Your task to perform on an android device: move an email to a new category in the gmail app Image 0: 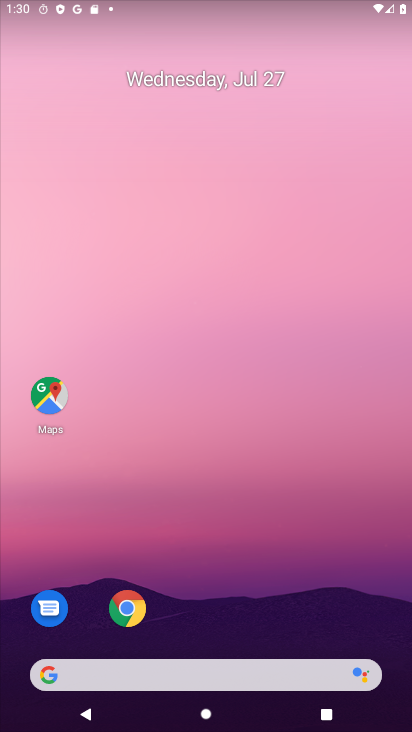
Step 0: click (176, 169)
Your task to perform on an android device: move an email to a new category in the gmail app Image 1: 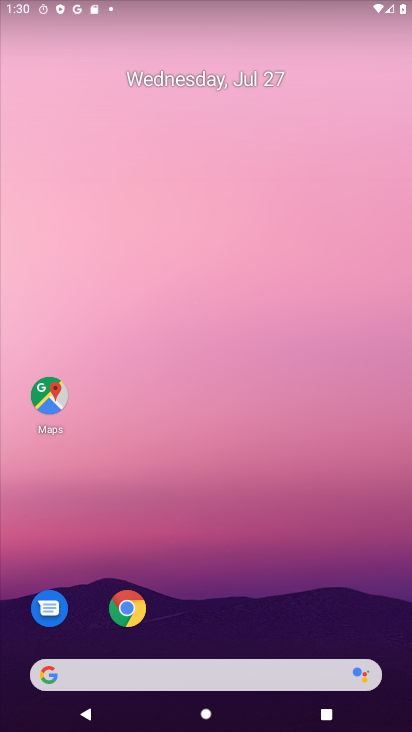
Step 1: drag from (170, 617) to (209, 41)
Your task to perform on an android device: move an email to a new category in the gmail app Image 2: 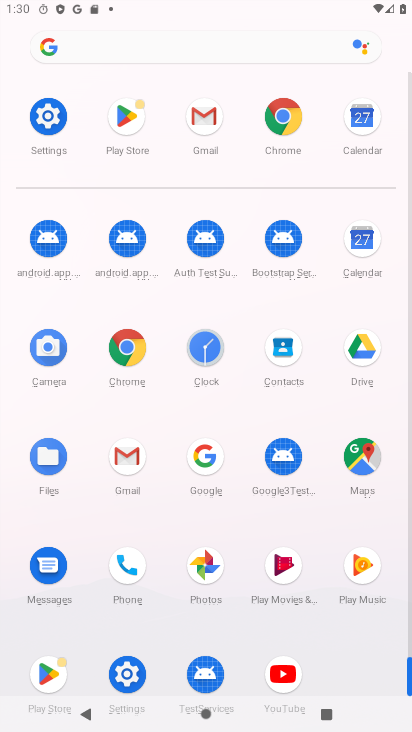
Step 2: click (130, 485)
Your task to perform on an android device: move an email to a new category in the gmail app Image 3: 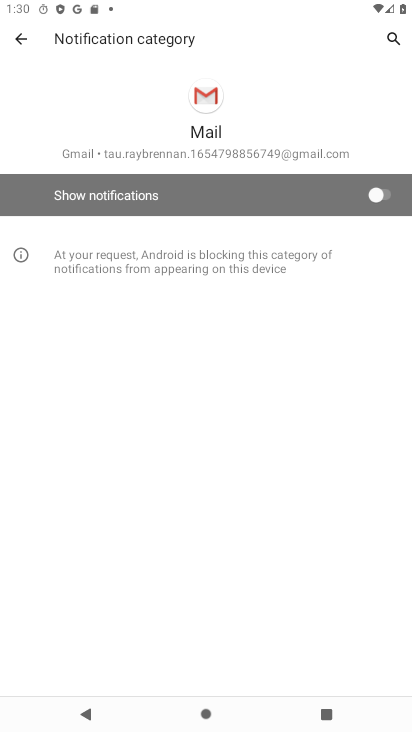
Step 3: click (15, 36)
Your task to perform on an android device: move an email to a new category in the gmail app Image 4: 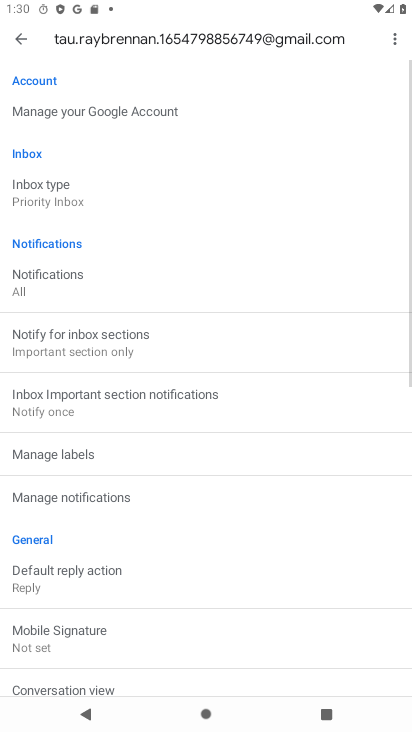
Step 4: click (15, 36)
Your task to perform on an android device: move an email to a new category in the gmail app Image 5: 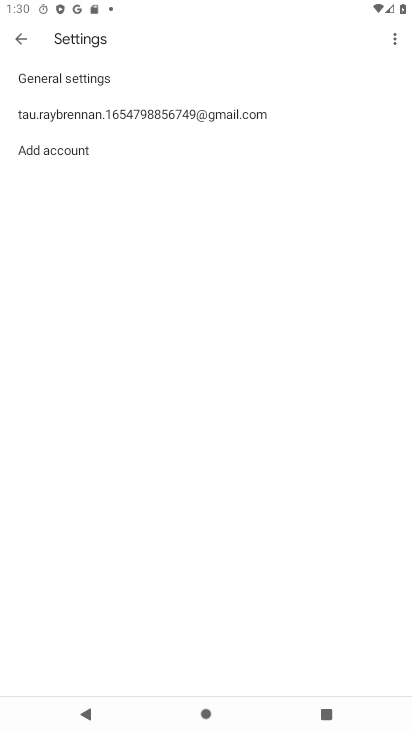
Step 5: click (18, 36)
Your task to perform on an android device: move an email to a new category in the gmail app Image 6: 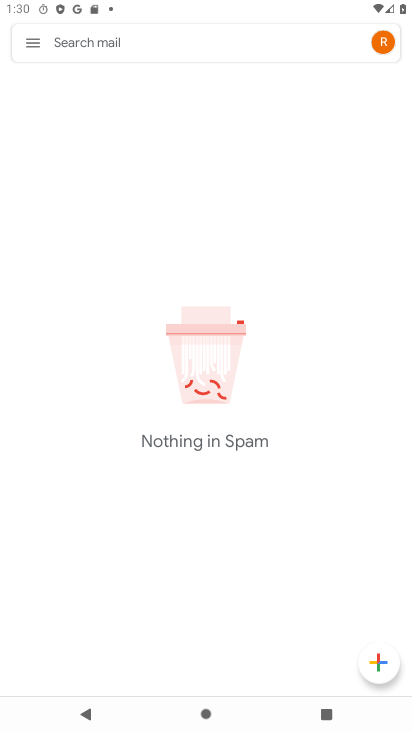
Step 6: click (26, 38)
Your task to perform on an android device: move an email to a new category in the gmail app Image 7: 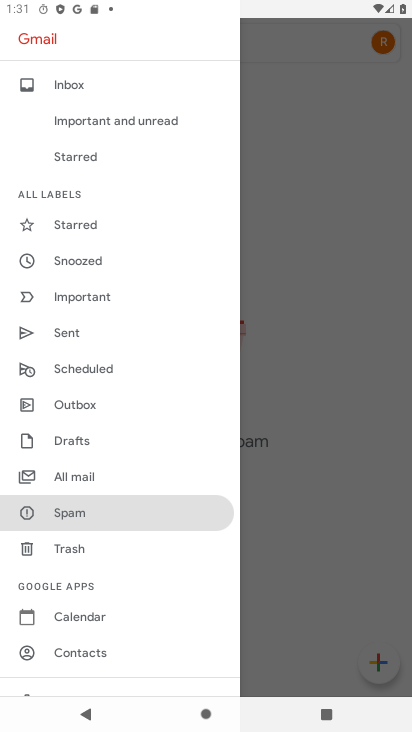
Step 7: click (80, 473)
Your task to perform on an android device: move an email to a new category in the gmail app Image 8: 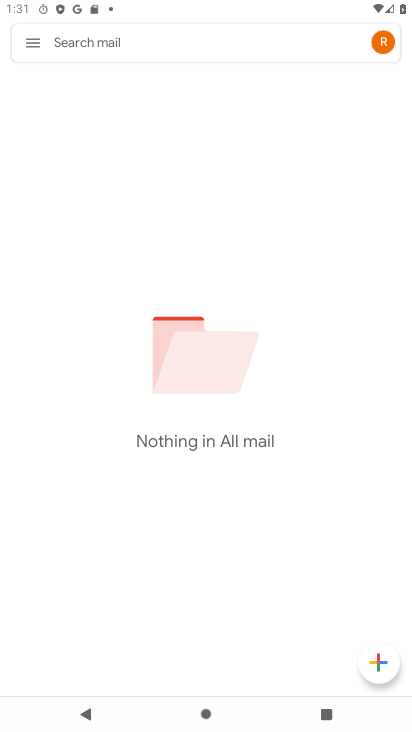
Step 8: task complete